Your task to perform on an android device: turn off smart reply in the gmail app Image 0: 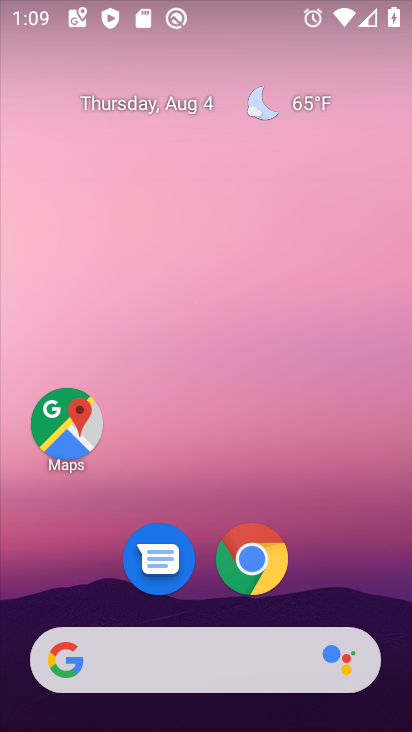
Step 0: drag from (184, 666) to (248, 86)
Your task to perform on an android device: turn off smart reply in the gmail app Image 1: 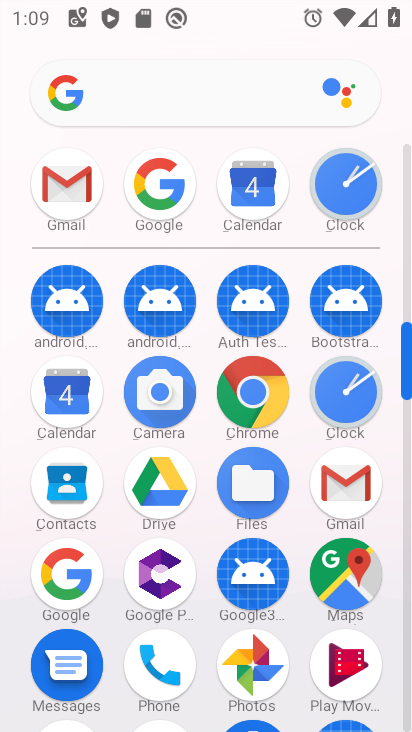
Step 1: click (68, 185)
Your task to perform on an android device: turn off smart reply in the gmail app Image 2: 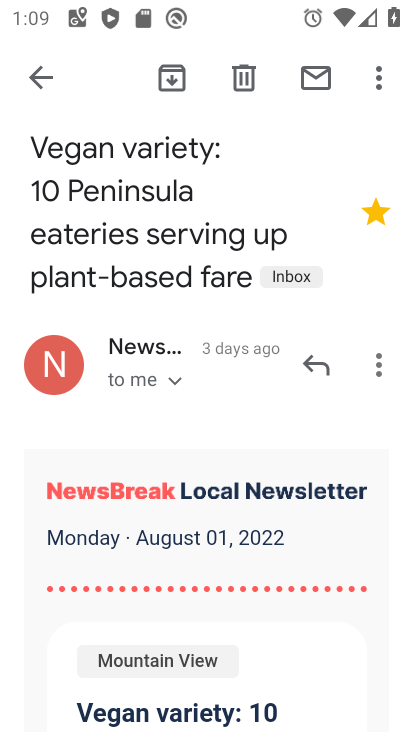
Step 2: press back button
Your task to perform on an android device: turn off smart reply in the gmail app Image 3: 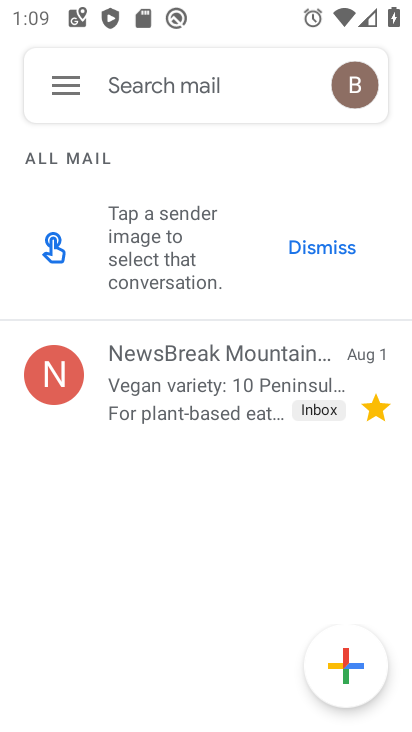
Step 3: click (60, 88)
Your task to perform on an android device: turn off smart reply in the gmail app Image 4: 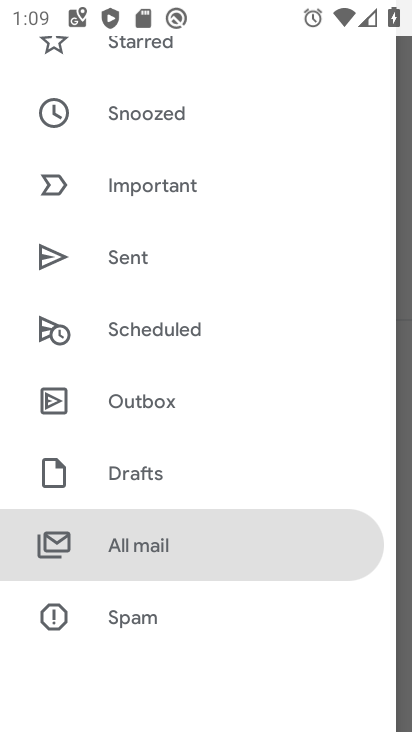
Step 4: drag from (170, 623) to (236, 502)
Your task to perform on an android device: turn off smart reply in the gmail app Image 5: 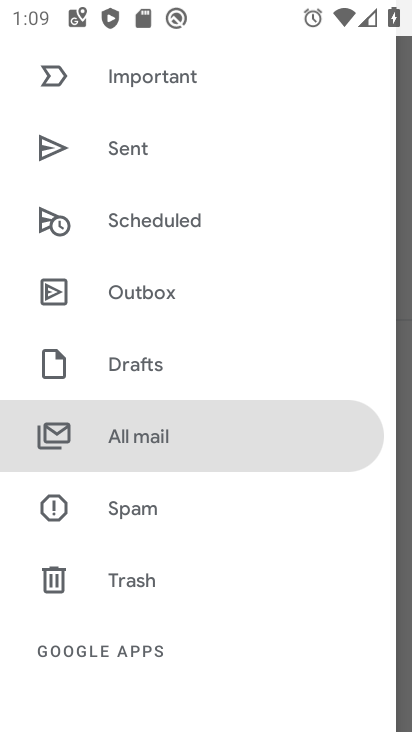
Step 5: drag from (174, 615) to (217, 500)
Your task to perform on an android device: turn off smart reply in the gmail app Image 6: 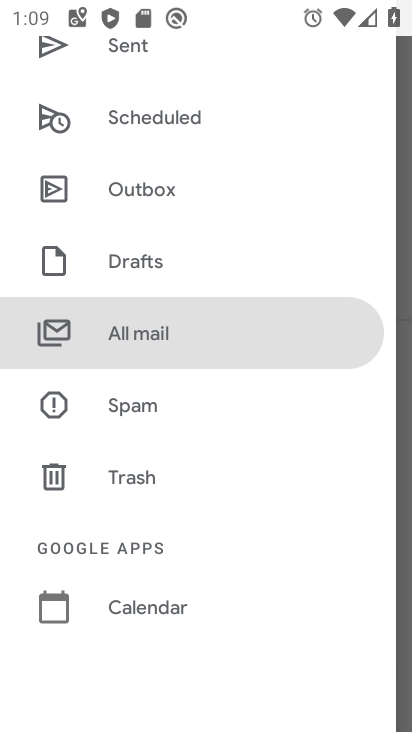
Step 6: drag from (188, 652) to (234, 561)
Your task to perform on an android device: turn off smart reply in the gmail app Image 7: 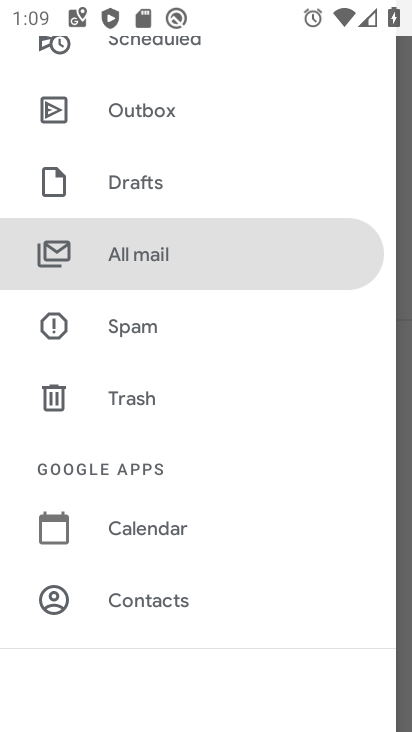
Step 7: drag from (203, 583) to (205, 432)
Your task to perform on an android device: turn off smart reply in the gmail app Image 8: 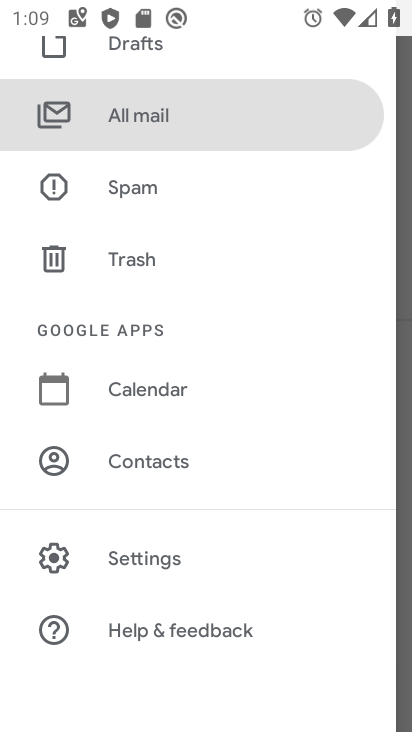
Step 8: click (165, 571)
Your task to perform on an android device: turn off smart reply in the gmail app Image 9: 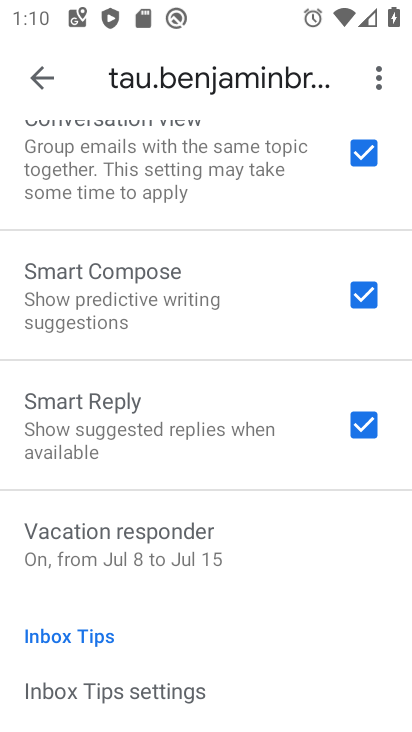
Step 9: click (353, 429)
Your task to perform on an android device: turn off smart reply in the gmail app Image 10: 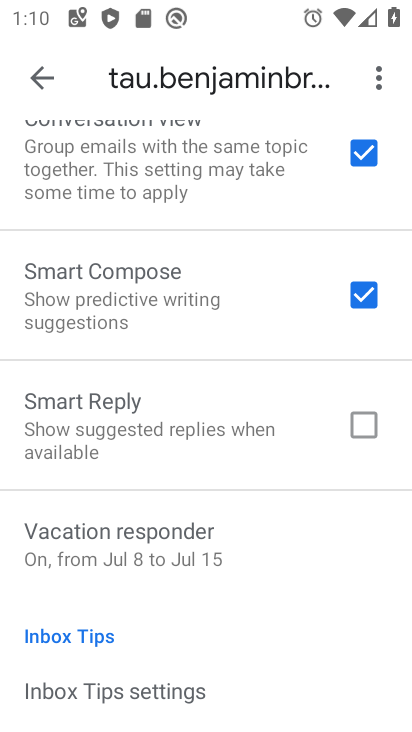
Step 10: task complete